Your task to perform on an android device: Go to location settings Image 0: 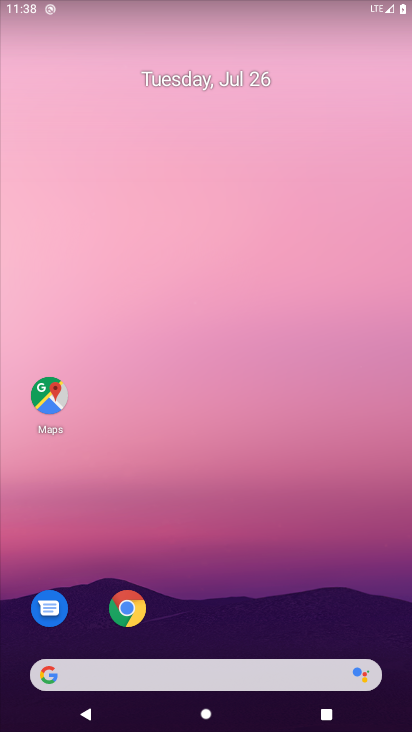
Step 0: press home button
Your task to perform on an android device: Go to location settings Image 1: 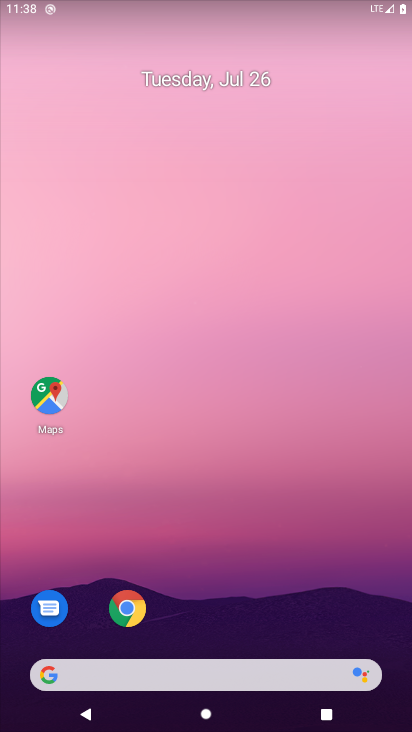
Step 1: drag from (251, 625) to (238, 162)
Your task to perform on an android device: Go to location settings Image 2: 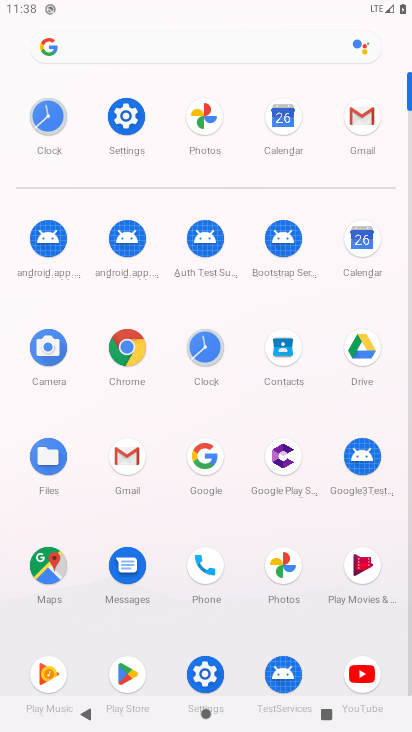
Step 2: click (129, 120)
Your task to perform on an android device: Go to location settings Image 3: 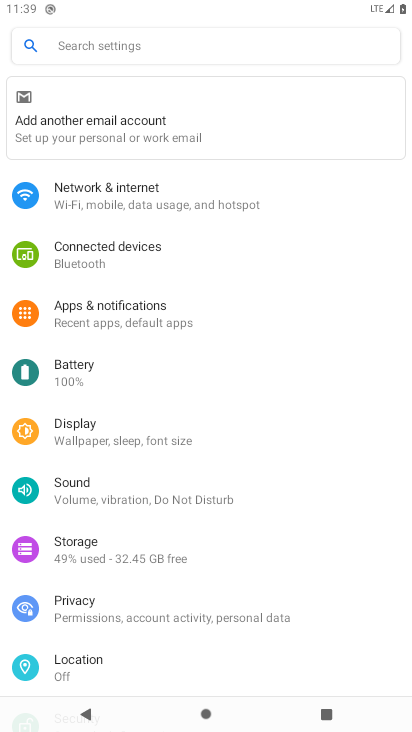
Step 3: drag from (108, 566) to (114, 328)
Your task to perform on an android device: Go to location settings Image 4: 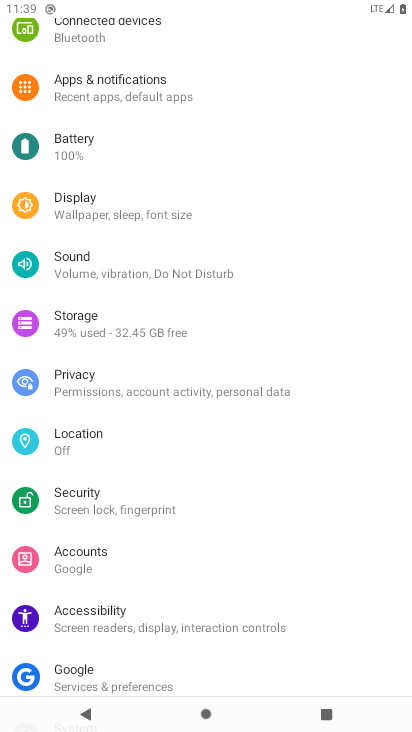
Step 4: click (78, 442)
Your task to perform on an android device: Go to location settings Image 5: 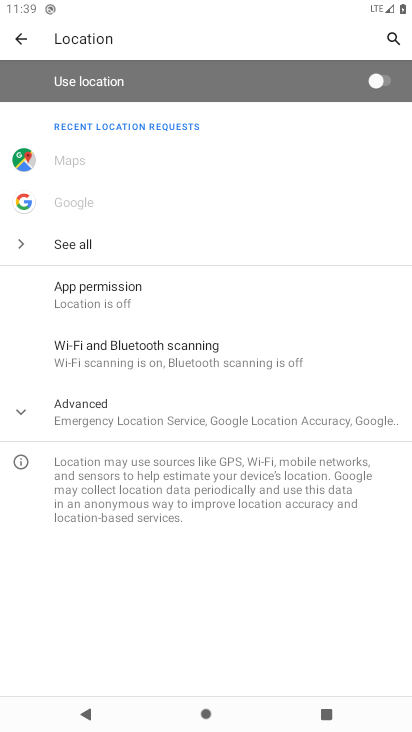
Step 5: task complete